Your task to perform on an android device: open chrome privacy settings Image 0: 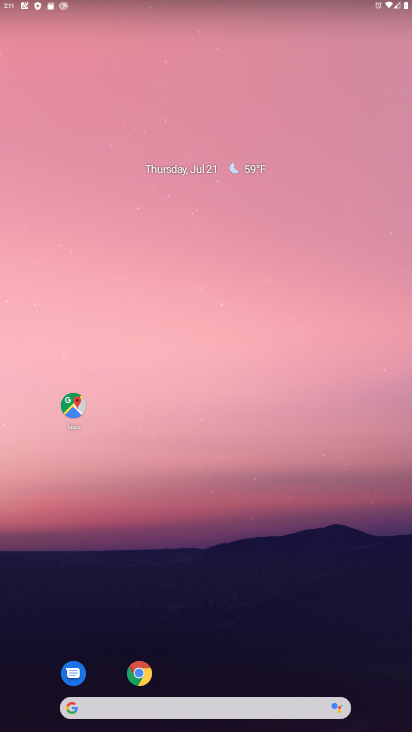
Step 0: click (138, 673)
Your task to perform on an android device: open chrome privacy settings Image 1: 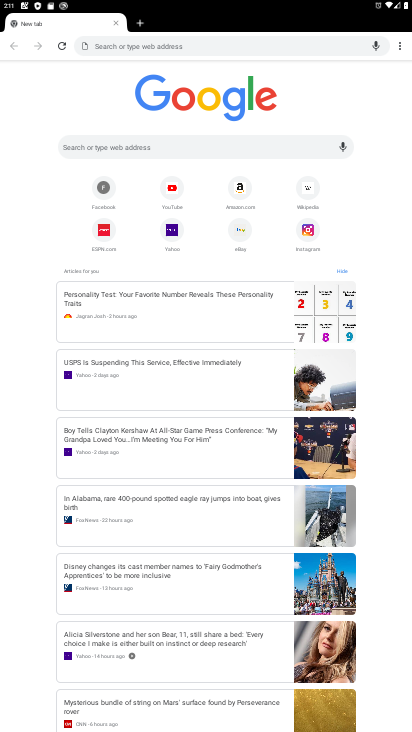
Step 1: click (400, 44)
Your task to perform on an android device: open chrome privacy settings Image 2: 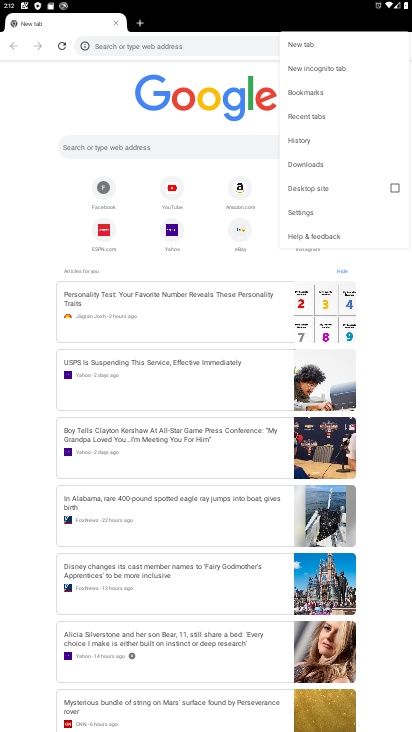
Step 2: click (312, 213)
Your task to perform on an android device: open chrome privacy settings Image 3: 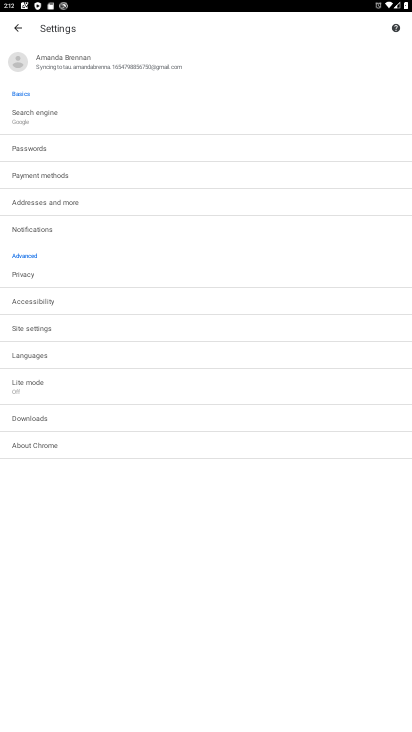
Step 3: click (29, 277)
Your task to perform on an android device: open chrome privacy settings Image 4: 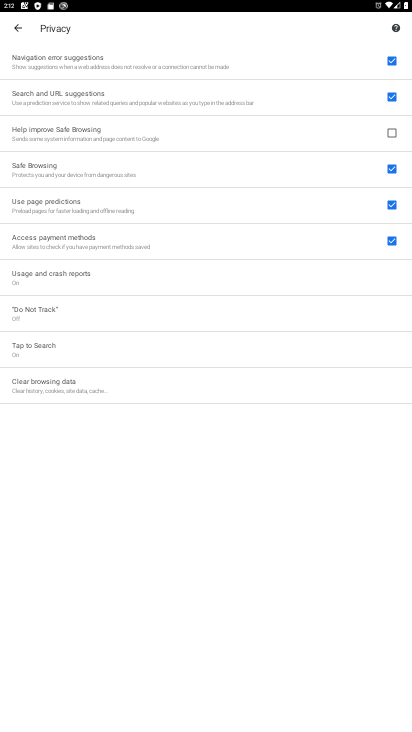
Step 4: task complete